Your task to perform on an android device: Open the map Image 0: 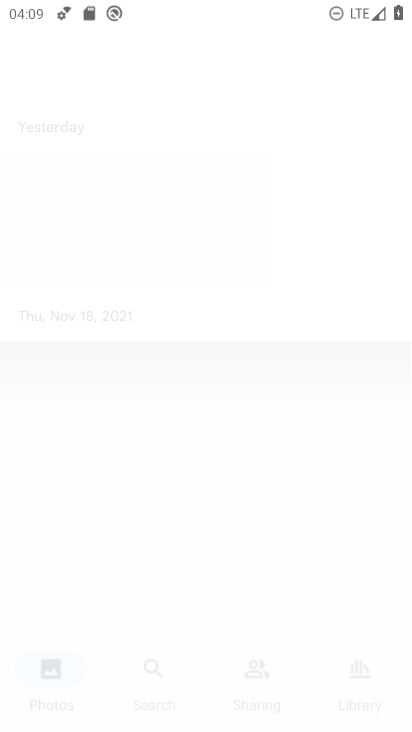
Step 0: drag from (223, 719) to (217, 154)
Your task to perform on an android device: Open the map Image 1: 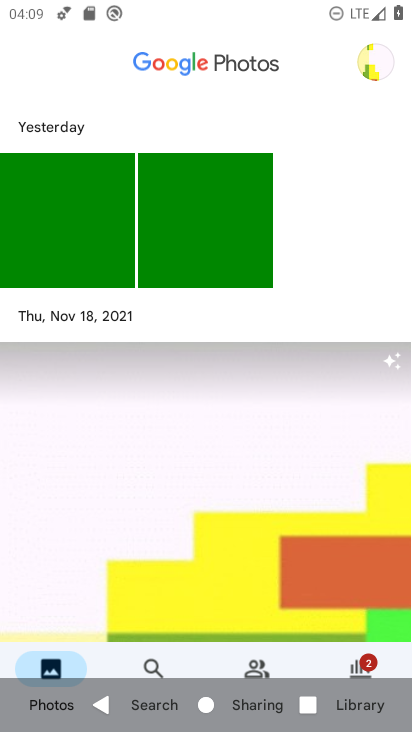
Step 1: press home button
Your task to perform on an android device: Open the map Image 2: 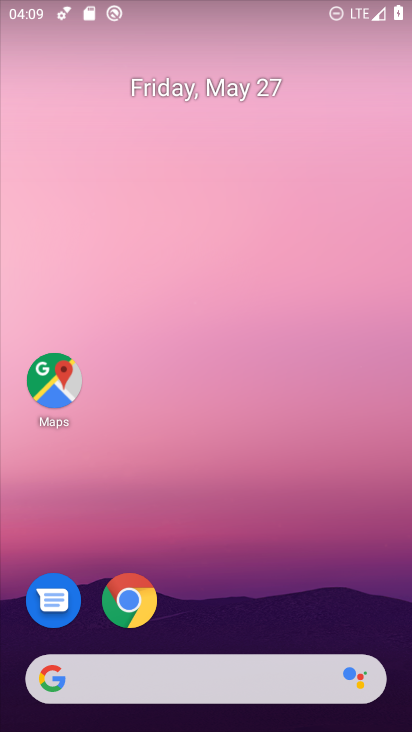
Step 2: drag from (221, 642) to (234, 129)
Your task to perform on an android device: Open the map Image 3: 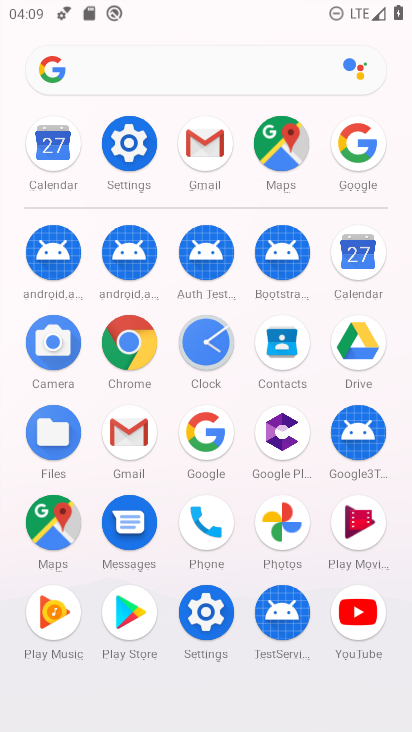
Step 3: click (55, 519)
Your task to perform on an android device: Open the map Image 4: 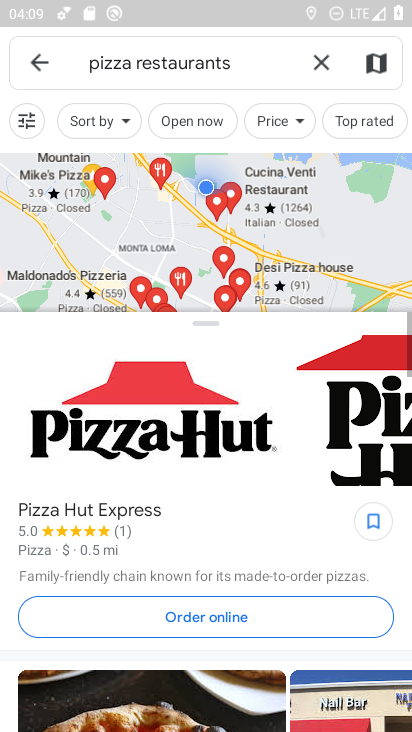
Step 4: task complete